Your task to perform on an android device: turn off priority inbox in the gmail app Image 0: 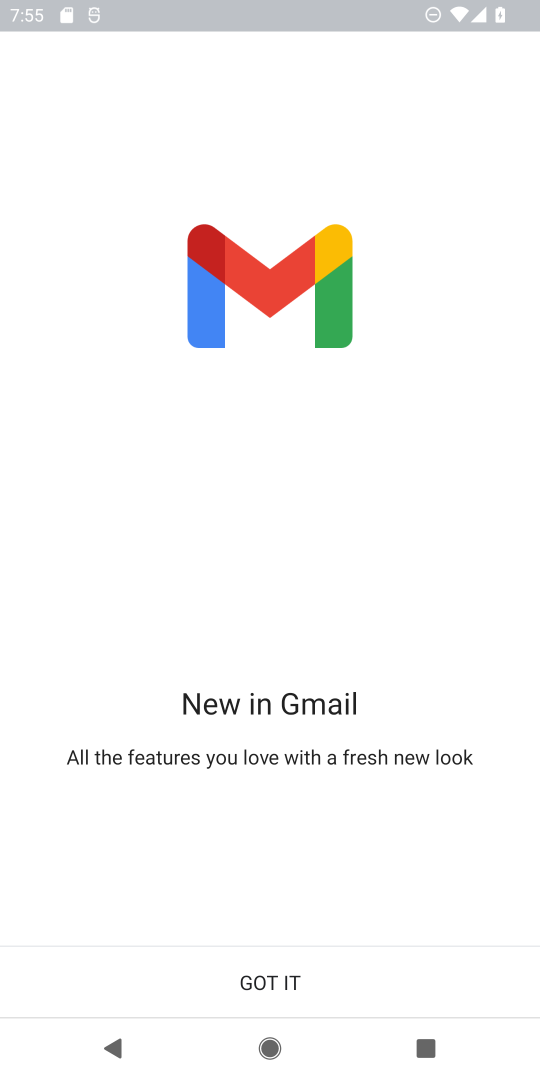
Step 0: press home button
Your task to perform on an android device: turn off priority inbox in the gmail app Image 1: 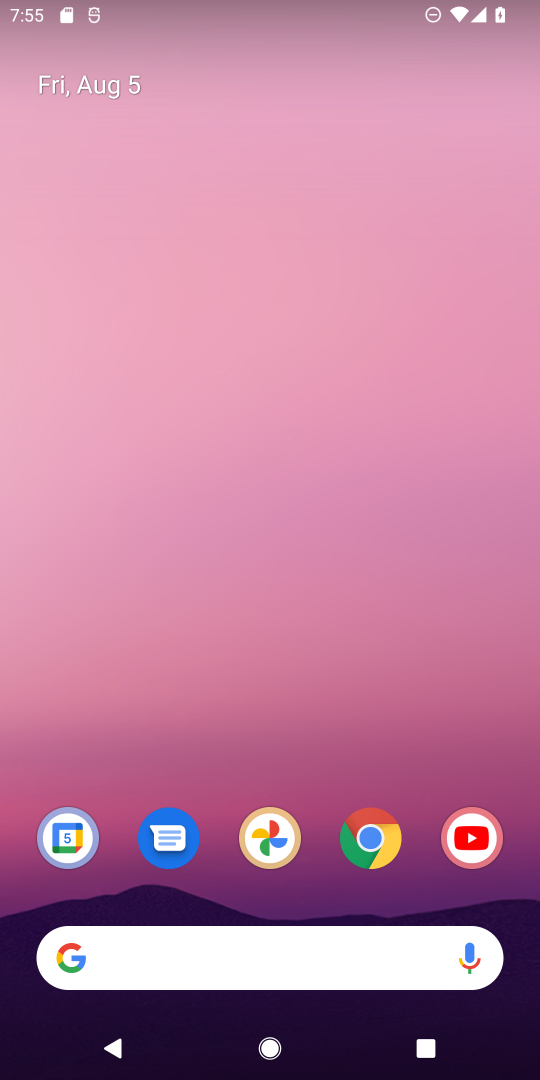
Step 1: drag from (207, 802) to (207, 312)
Your task to perform on an android device: turn off priority inbox in the gmail app Image 2: 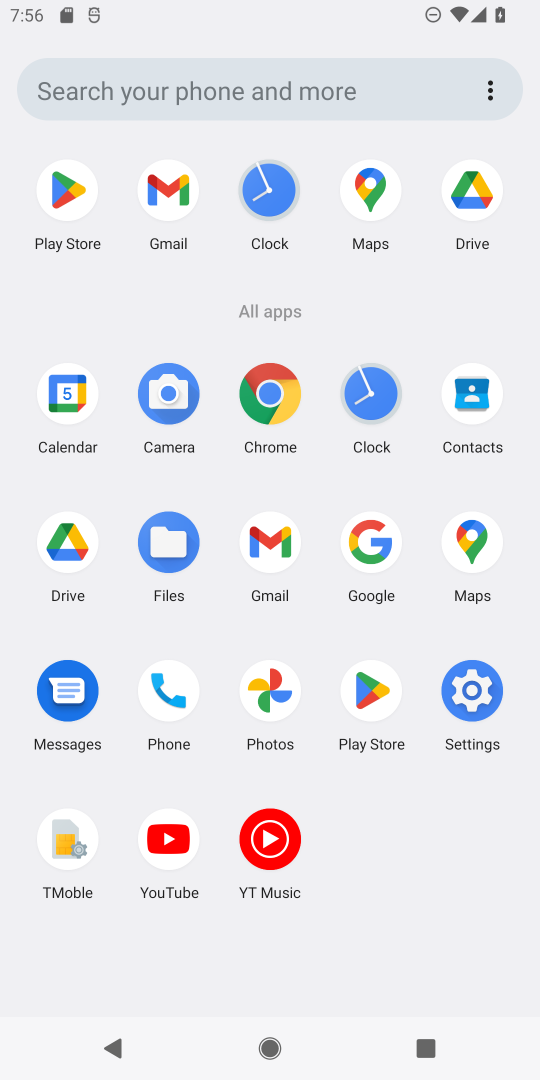
Step 2: click (263, 538)
Your task to perform on an android device: turn off priority inbox in the gmail app Image 3: 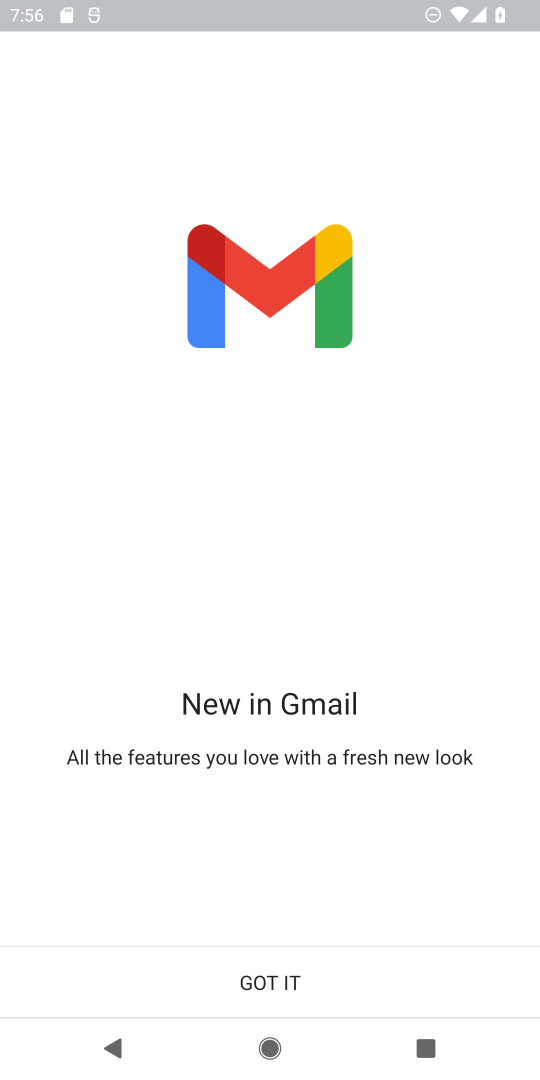
Step 3: click (265, 976)
Your task to perform on an android device: turn off priority inbox in the gmail app Image 4: 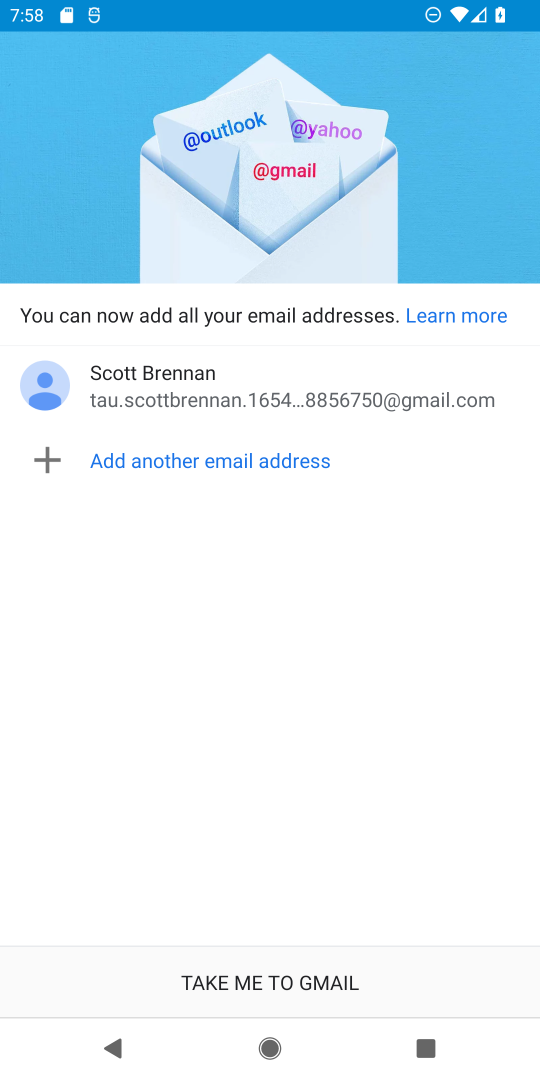
Step 4: click (230, 985)
Your task to perform on an android device: turn off priority inbox in the gmail app Image 5: 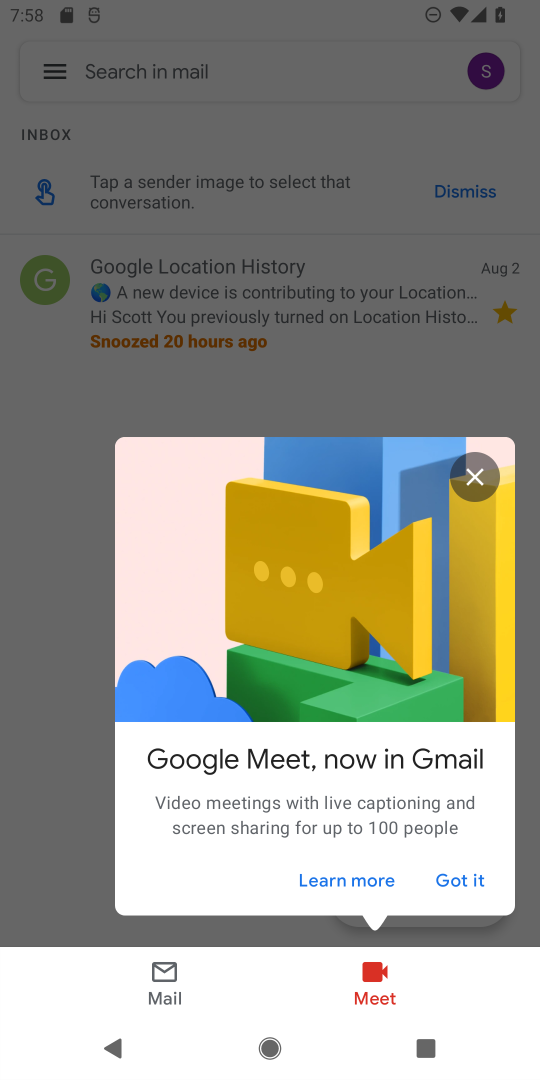
Step 5: click (487, 476)
Your task to perform on an android device: turn off priority inbox in the gmail app Image 6: 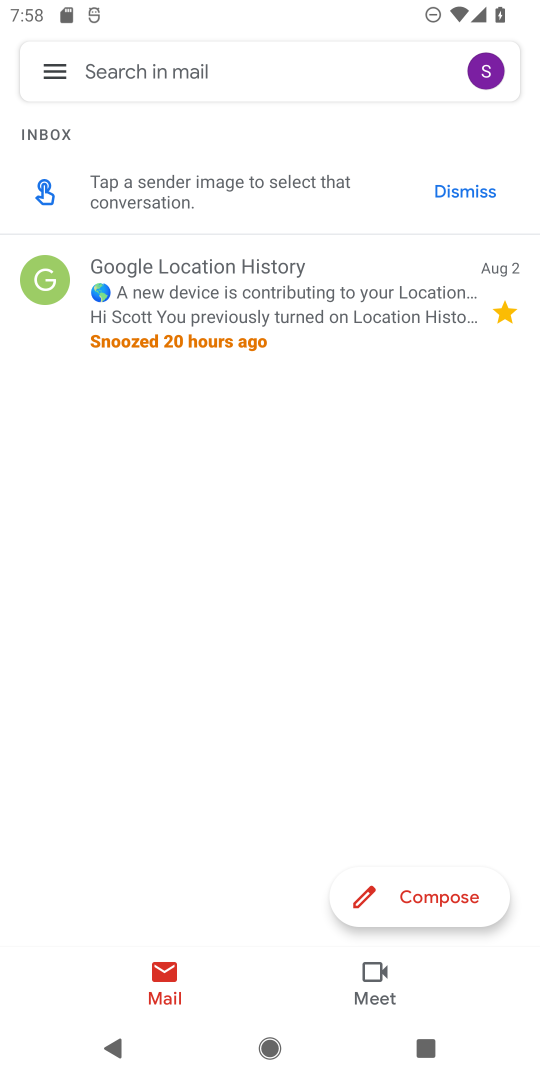
Step 6: click (53, 84)
Your task to perform on an android device: turn off priority inbox in the gmail app Image 7: 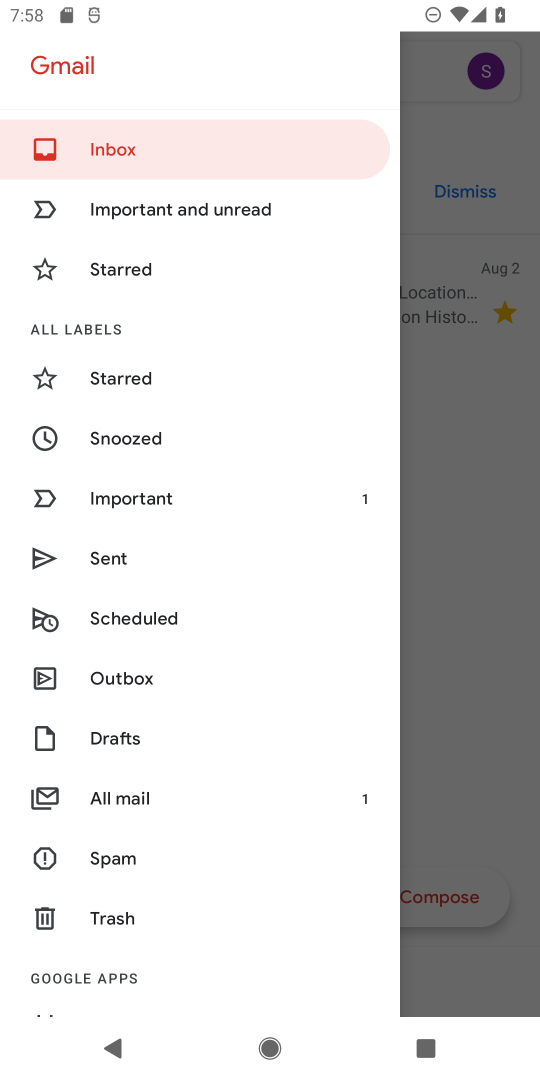
Step 7: drag from (143, 939) to (148, 390)
Your task to perform on an android device: turn off priority inbox in the gmail app Image 8: 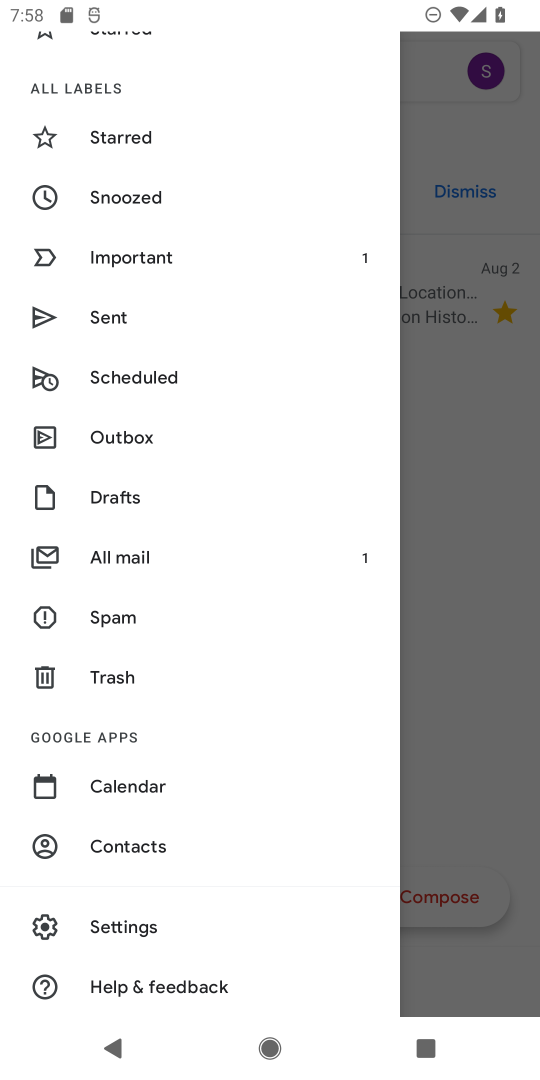
Step 8: click (137, 924)
Your task to perform on an android device: turn off priority inbox in the gmail app Image 9: 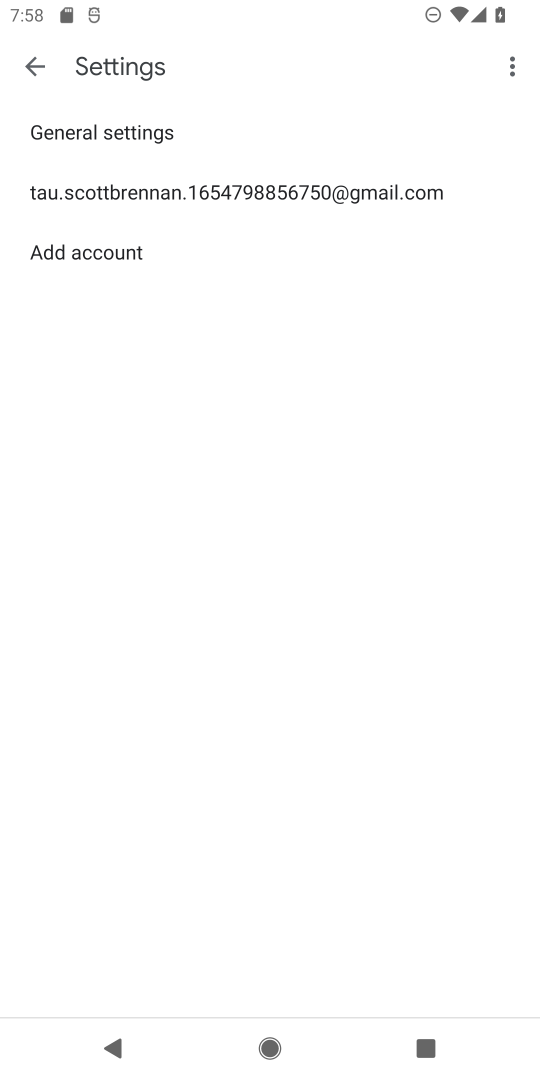
Step 9: click (78, 193)
Your task to perform on an android device: turn off priority inbox in the gmail app Image 10: 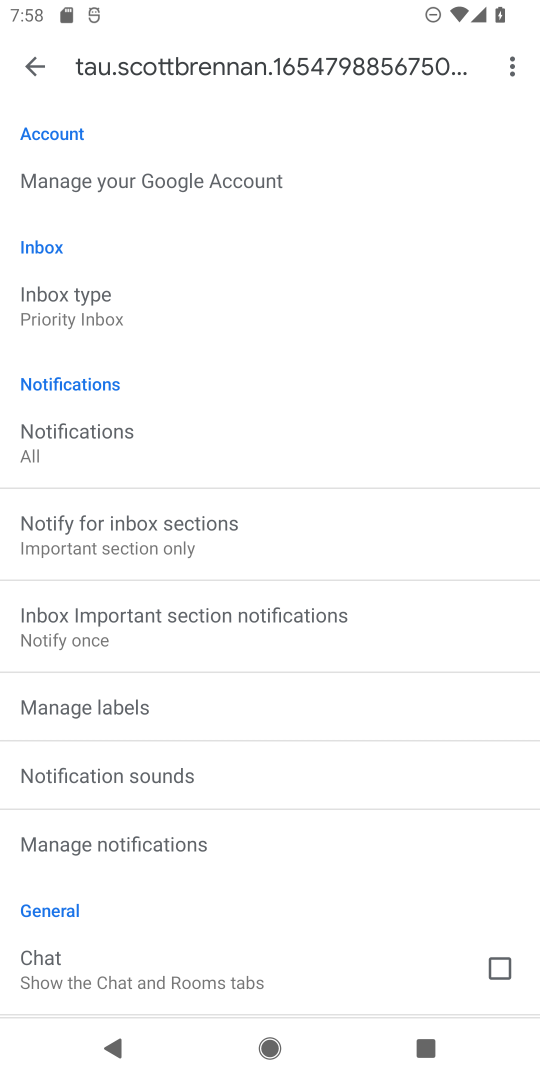
Step 10: click (89, 319)
Your task to perform on an android device: turn off priority inbox in the gmail app Image 11: 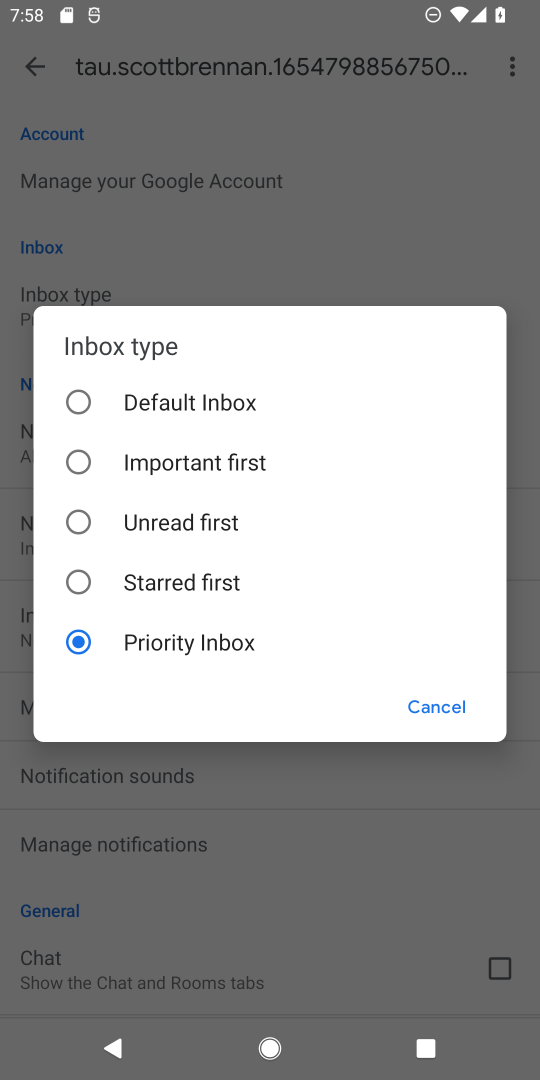
Step 11: click (187, 582)
Your task to perform on an android device: turn off priority inbox in the gmail app Image 12: 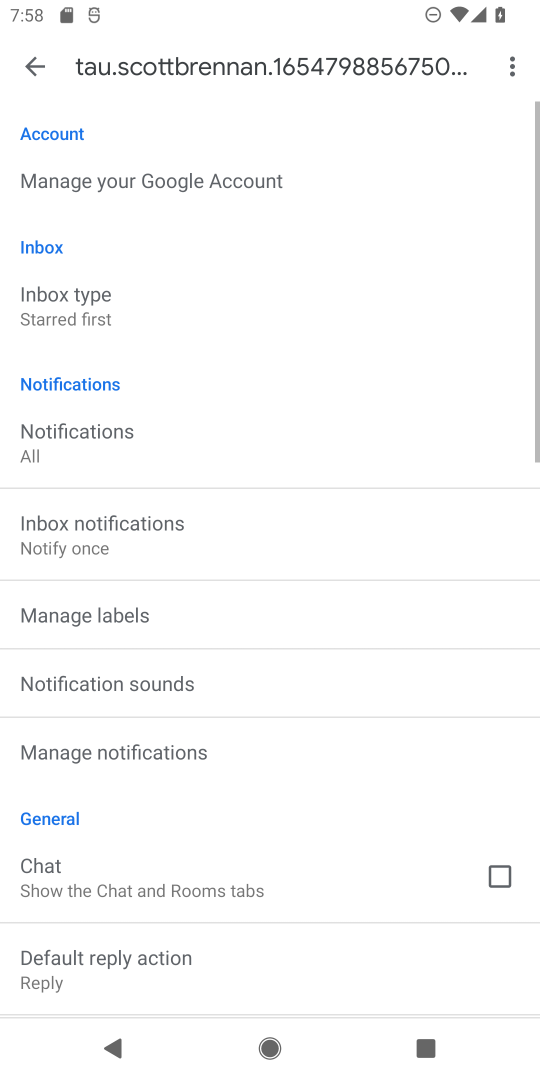
Step 12: task complete